Your task to perform on an android device: turn off notifications settings in the gmail app Image 0: 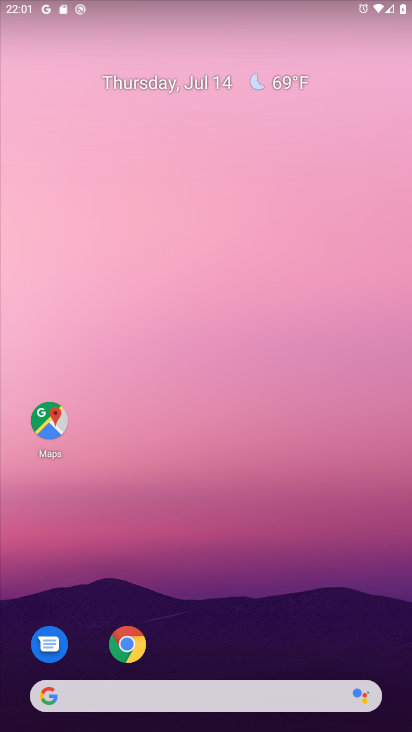
Step 0: drag from (182, 653) to (240, 29)
Your task to perform on an android device: turn off notifications settings in the gmail app Image 1: 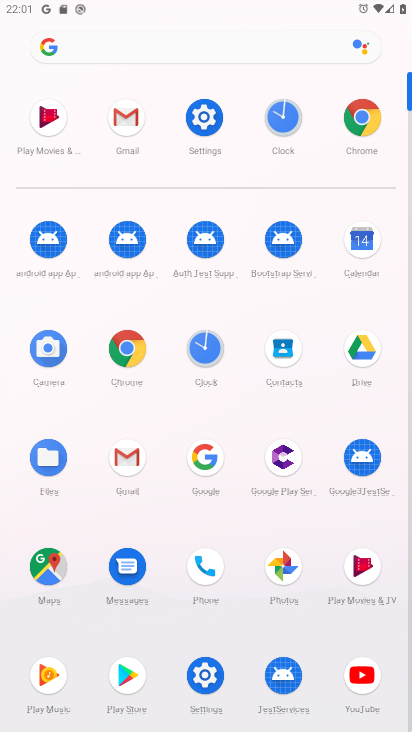
Step 1: click (214, 131)
Your task to perform on an android device: turn off notifications settings in the gmail app Image 2: 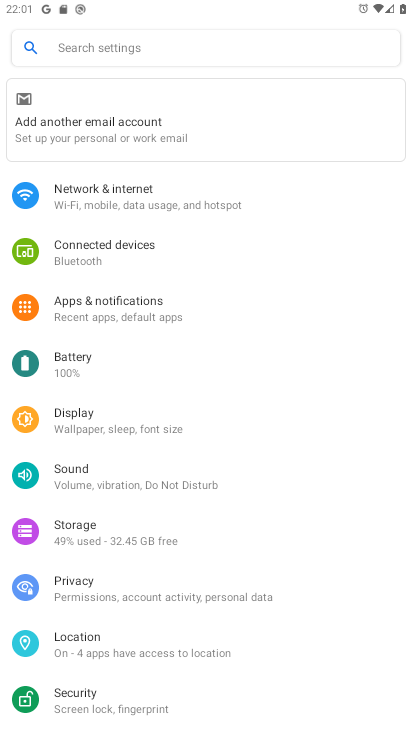
Step 2: click (150, 318)
Your task to perform on an android device: turn off notifications settings in the gmail app Image 3: 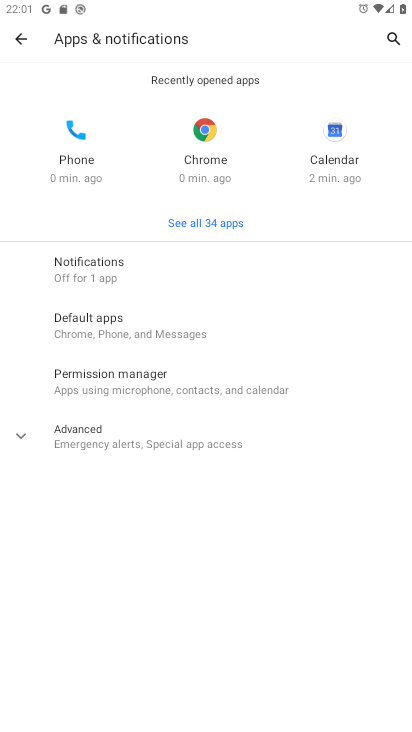
Step 3: click (236, 226)
Your task to perform on an android device: turn off notifications settings in the gmail app Image 4: 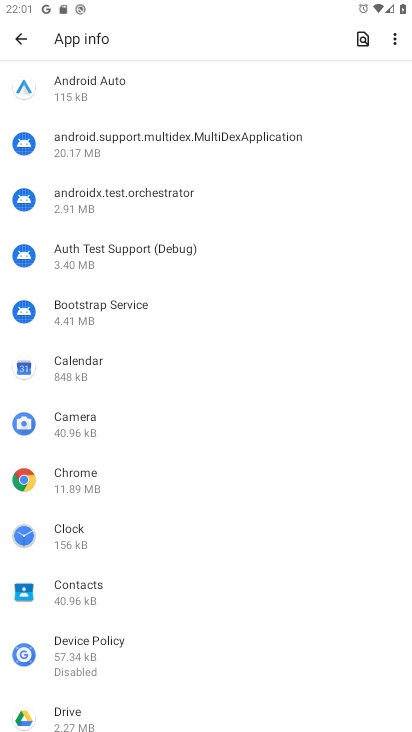
Step 4: drag from (130, 686) to (147, 183)
Your task to perform on an android device: turn off notifications settings in the gmail app Image 5: 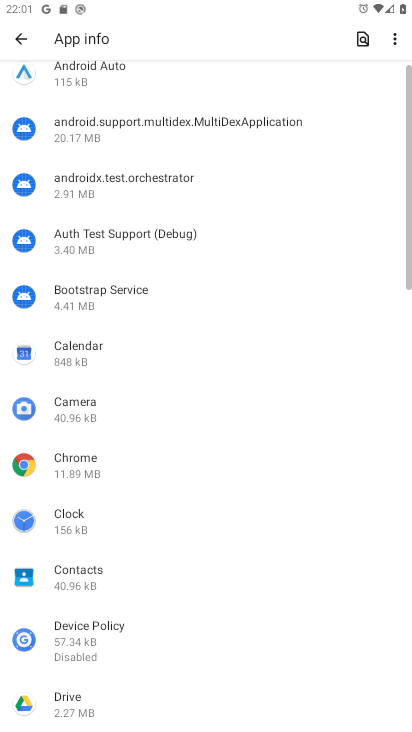
Step 5: drag from (155, 608) to (185, 174)
Your task to perform on an android device: turn off notifications settings in the gmail app Image 6: 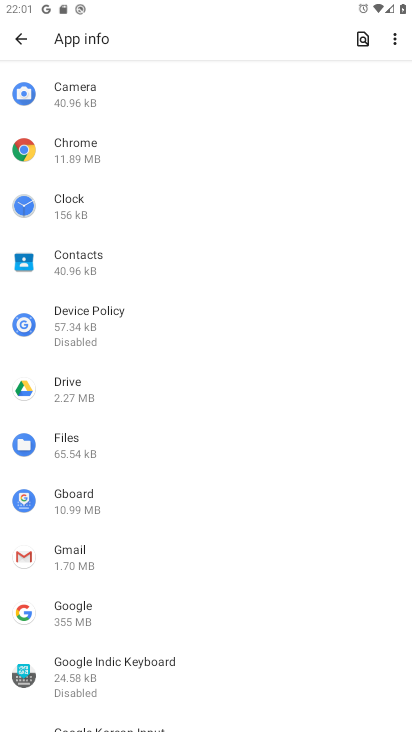
Step 6: click (66, 550)
Your task to perform on an android device: turn off notifications settings in the gmail app Image 7: 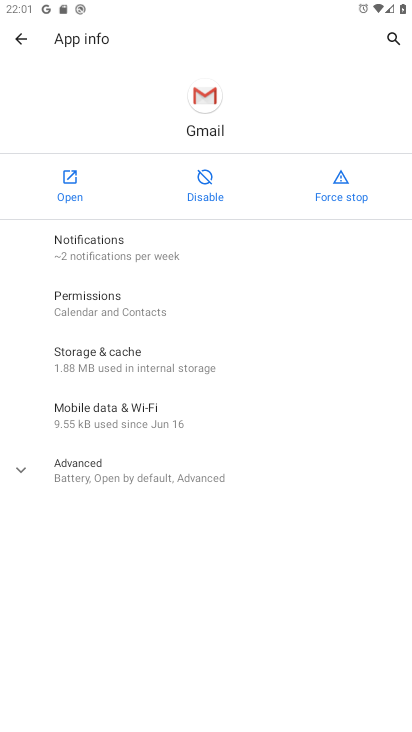
Step 7: click (173, 242)
Your task to perform on an android device: turn off notifications settings in the gmail app Image 8: 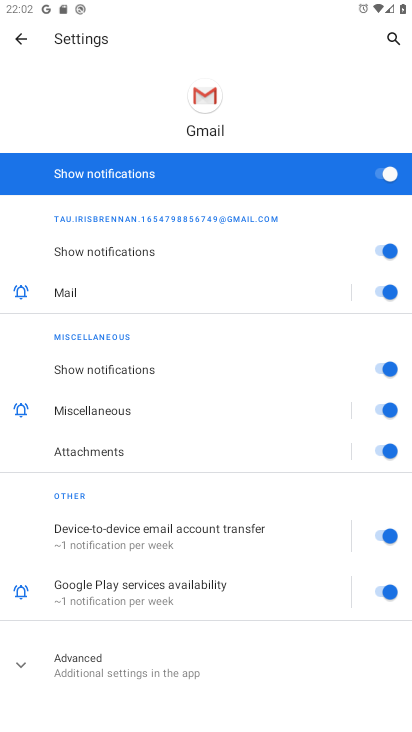
Step 8: click (386, 181)
Your task to perform on an android device: turn off notifications settings in the gmail app Image 9: 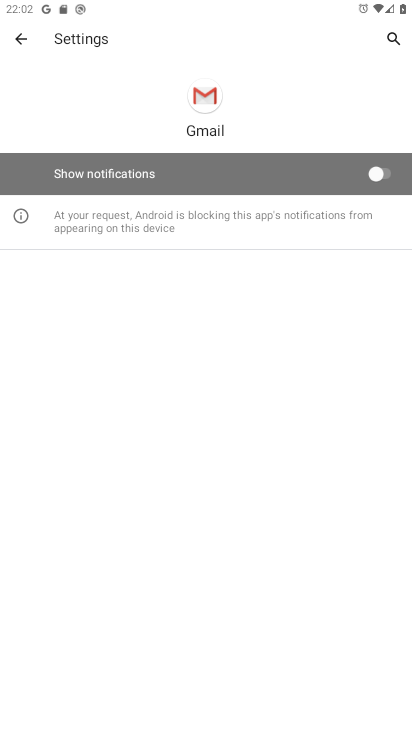
Step 9: task complete